Your task to perform on an android device: When is my next meeting? Image 0: 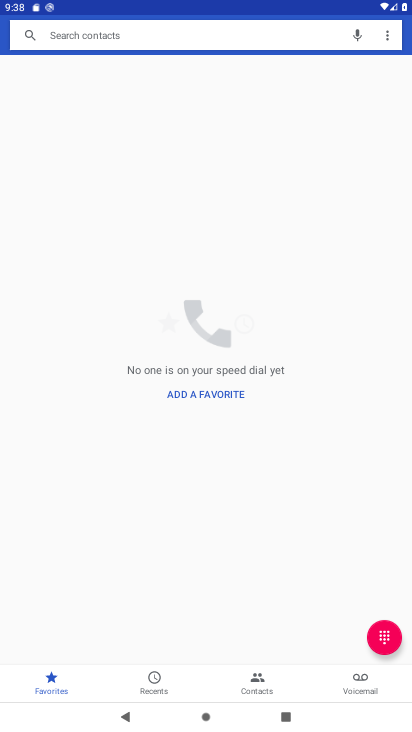
Step 0: press home button
Your task to perform on an android device: When is my next meeting? Image 1: 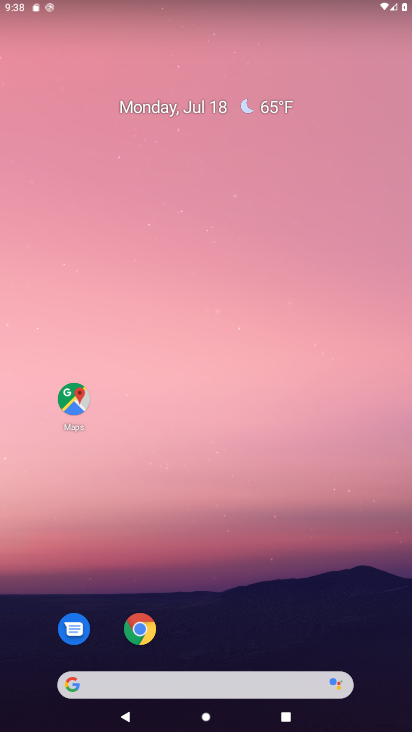
Step 1: drag from (215, 593) to (209, 125)
Your task to perform on an android device: When is my next meeting? Image 2: 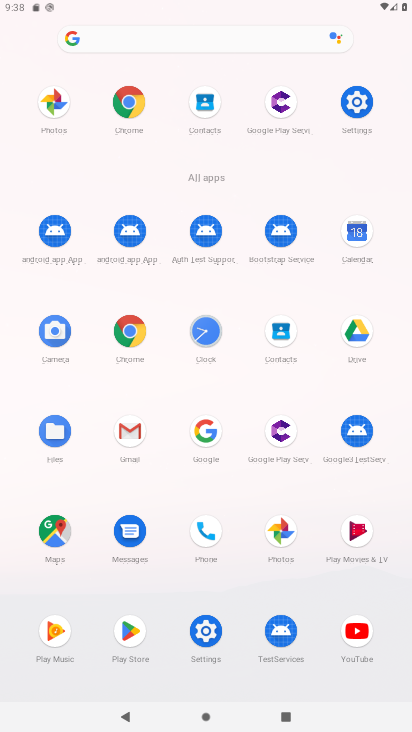
Step 2: click (350, 237)
Your task to perform on an android device: When is my next meeting? Image 3: 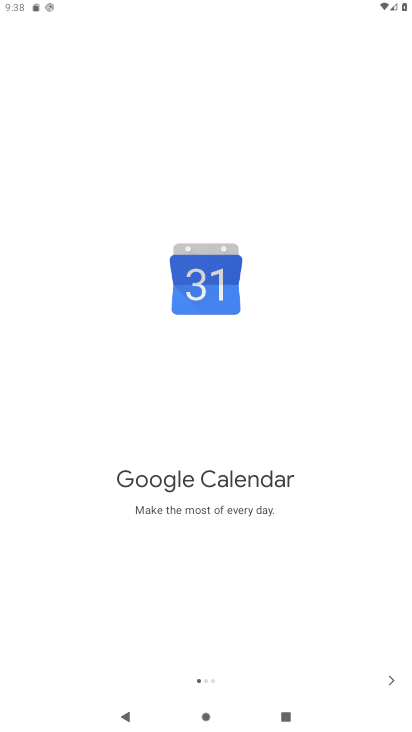
Step 3: click (390, 680)
Your task to perform on an android device: When is my next meeting? Image 4: 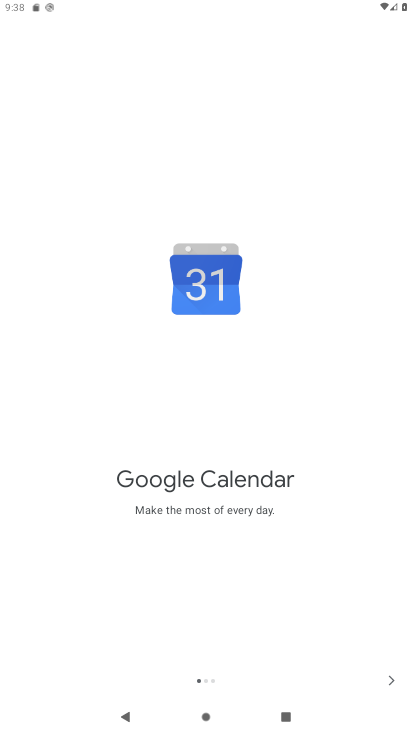
Step 4: click (390, 680)
Your task to perform on an android device: When is my next meeting? Image 5: 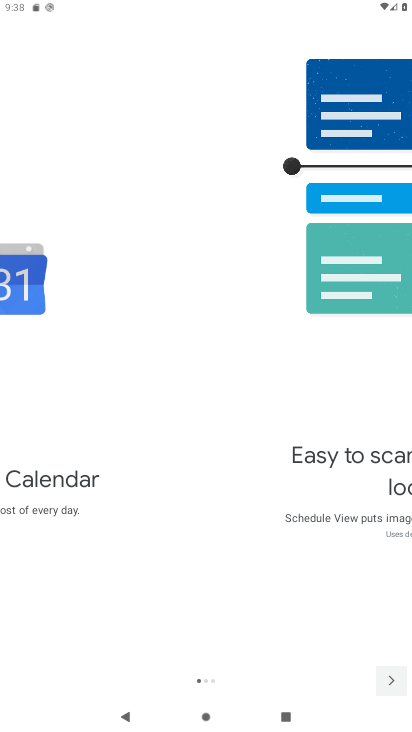
Step 5: click (390, 680)
Your task to perform on an android device: When is my next meeting? Image 6: 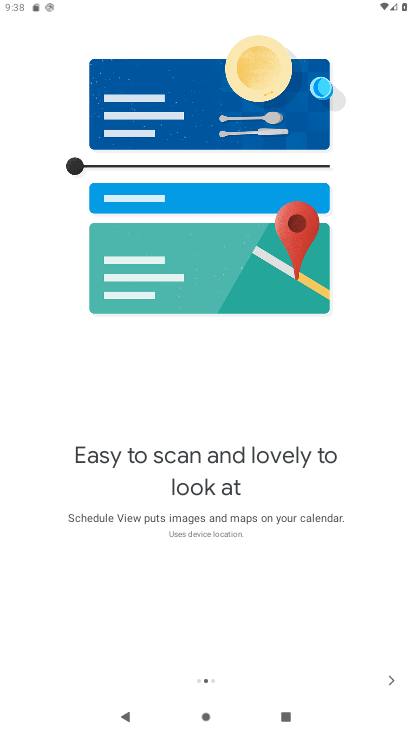
Step 6: click (390, 680)
Your task to perform on an android device: When is my next meeting? Image 7: 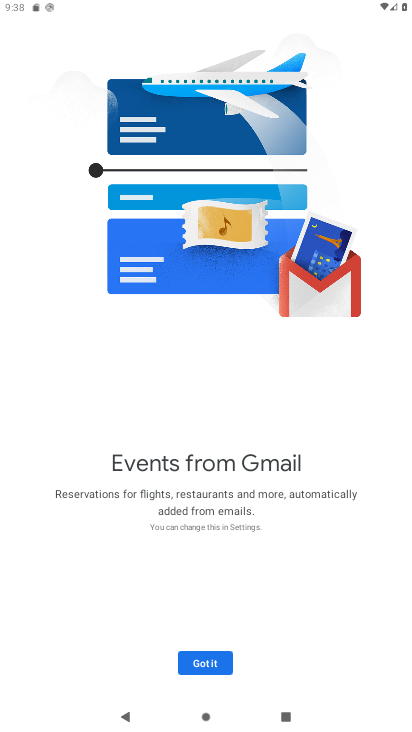
Step 7: click (210, 662)
Your task to perform on an android device: When is my next meeting? Image 8: 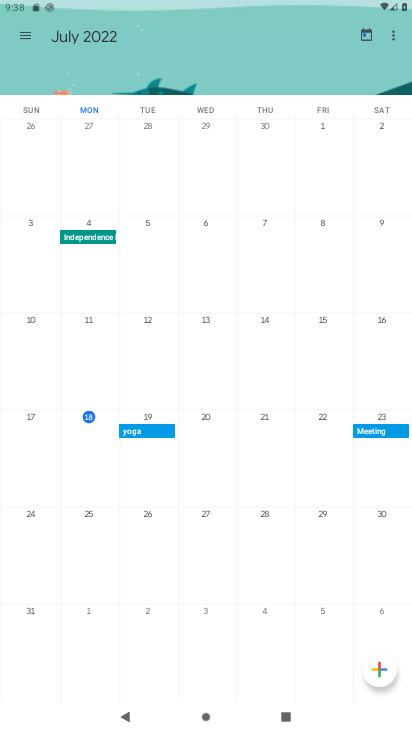
Step 8: click (20, 34)
Your task to perform on an android device: When is my next meeting? Image 9: 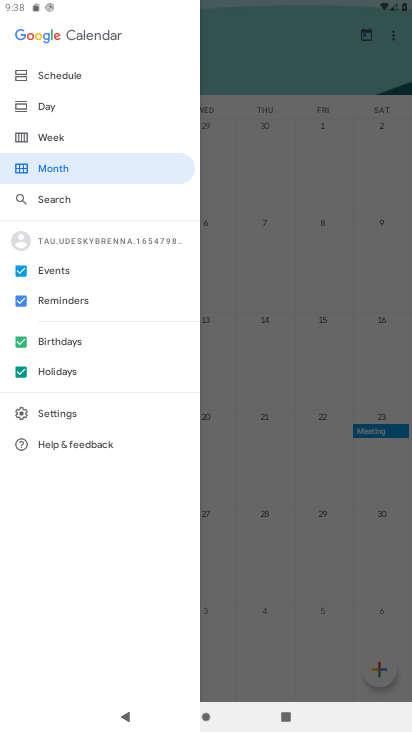
Step 9: click (47, 104)
Your task to perform on an android device: When is my next meeting? Image 10: 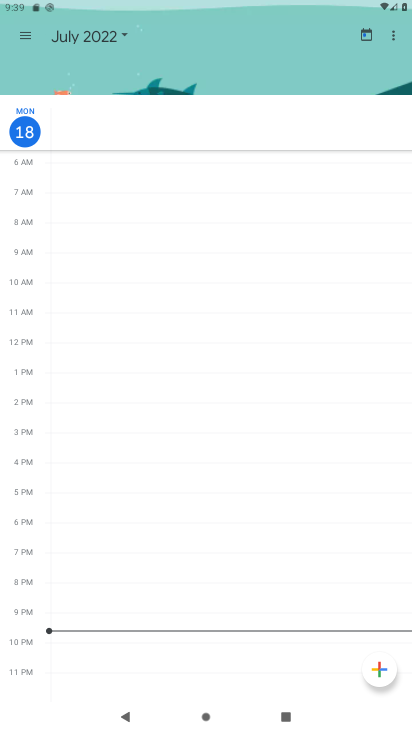
Step 10: task complete